Your task to perform on an android device: Add bose quietcomfort 35 to the cart on ebay.com Image 0: 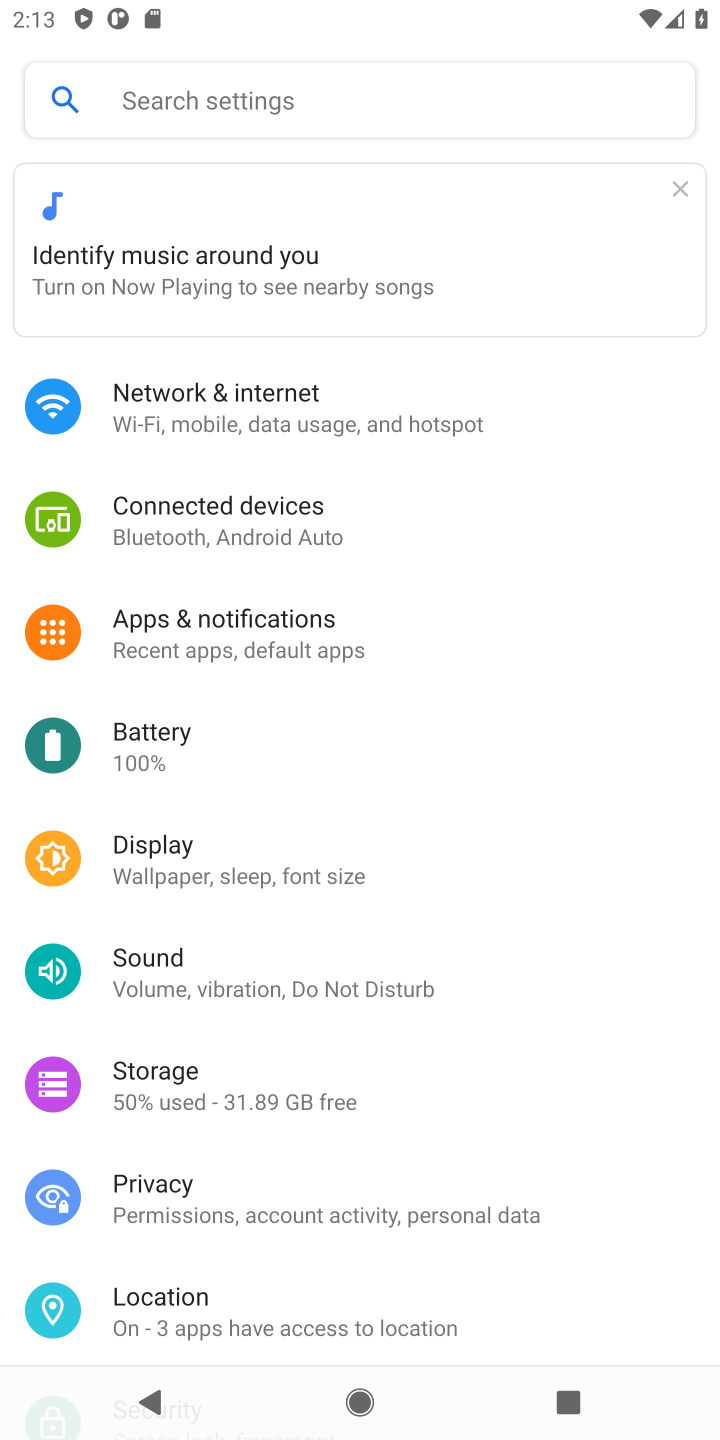
Step 0: press home button
Your task to perform on an android device: Add bose quietcomfort 35 to the cart on ebay.com Image 1: 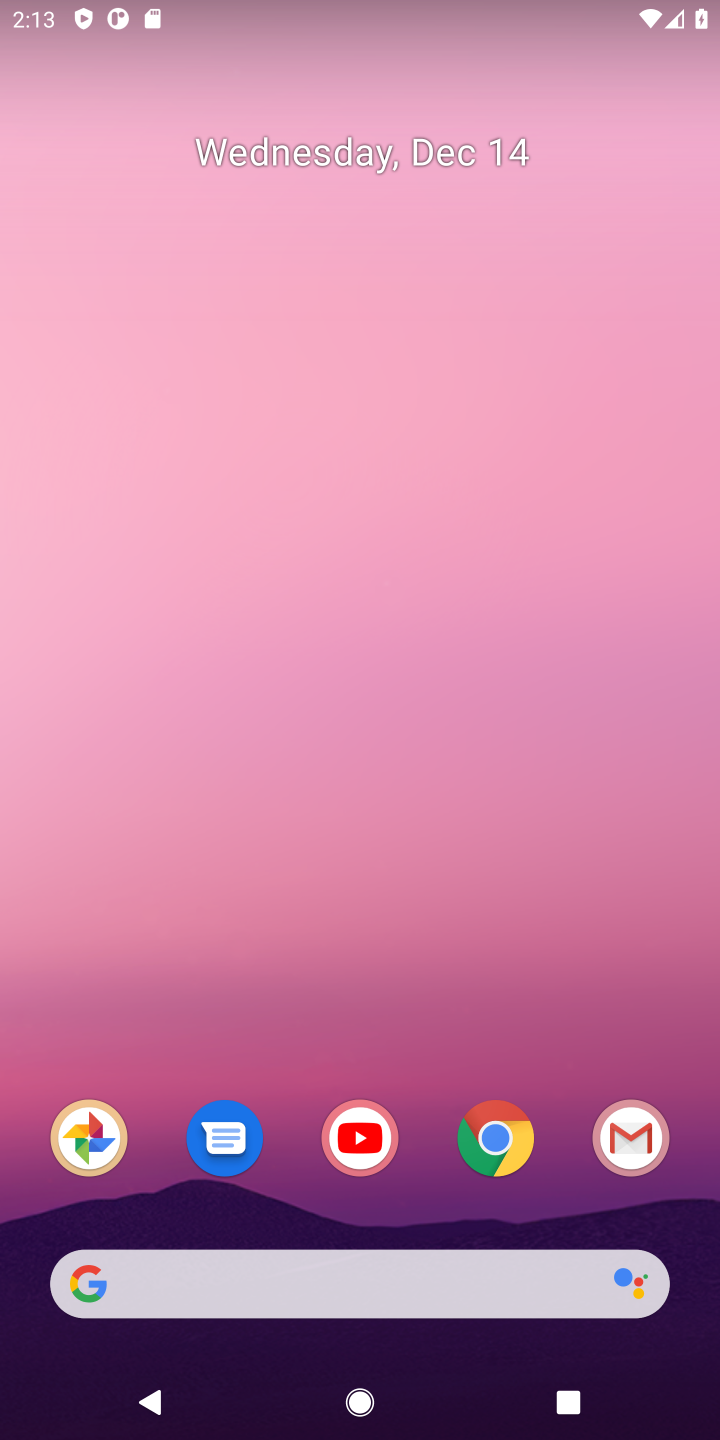
Step 1: click (488, 1149)
Your task to perform on an android device: Add bose quietcomfort 35 to the cart on ebay.com Image 2: 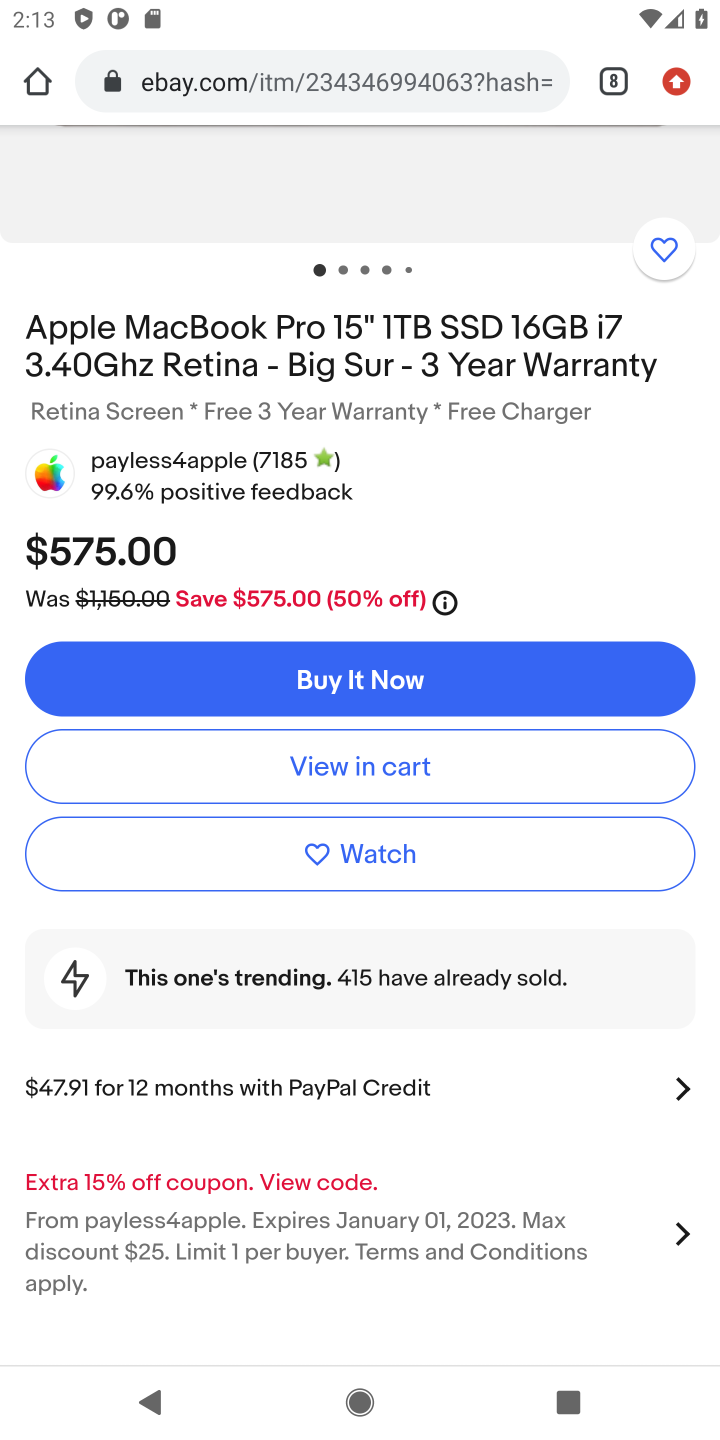
Step 2: drag from (475, 214) to (570, 1168)
Your task to perform on an android device: Add bose quietcomfort 35 to the cart on ebay.com Image 3: 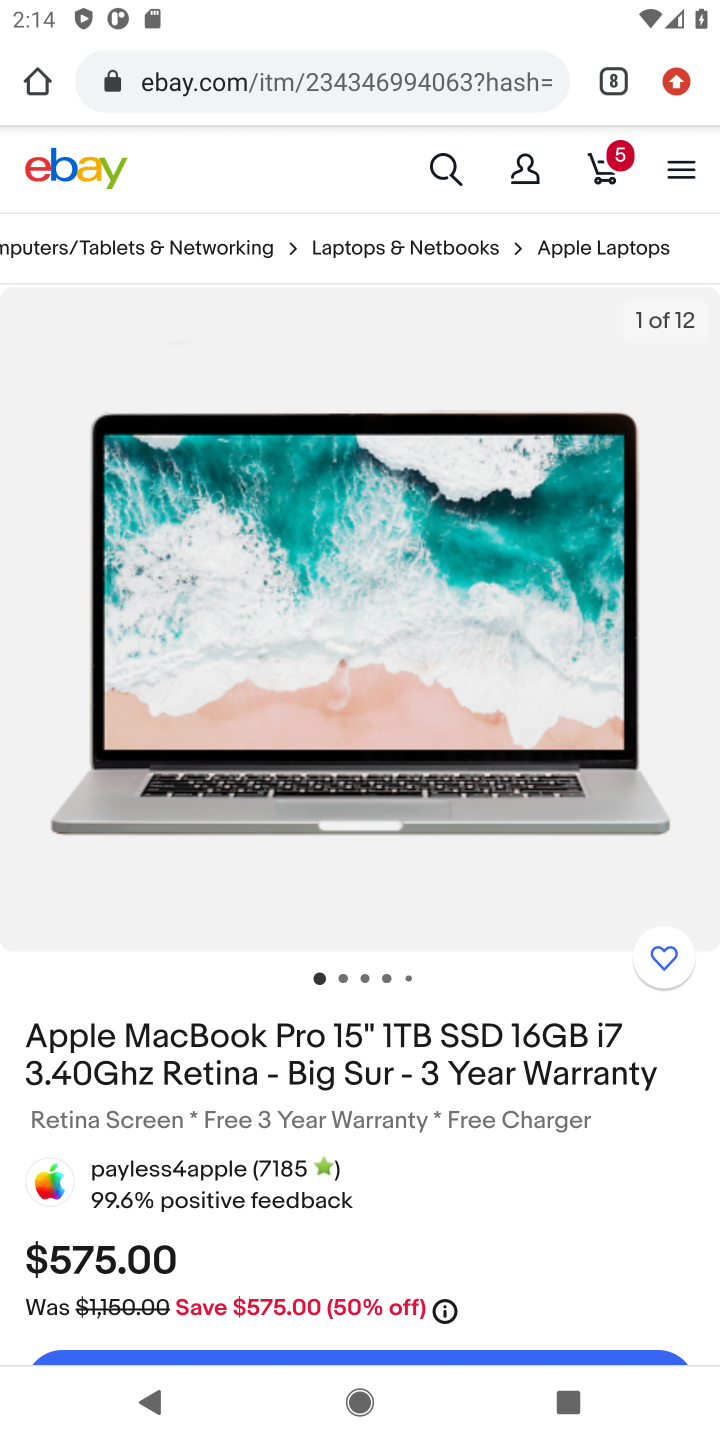
Step 3: click (436, 171)
Your task to perform on an android device: Add bose quietcomfort 35 to the cart on ebay.com Image 4: 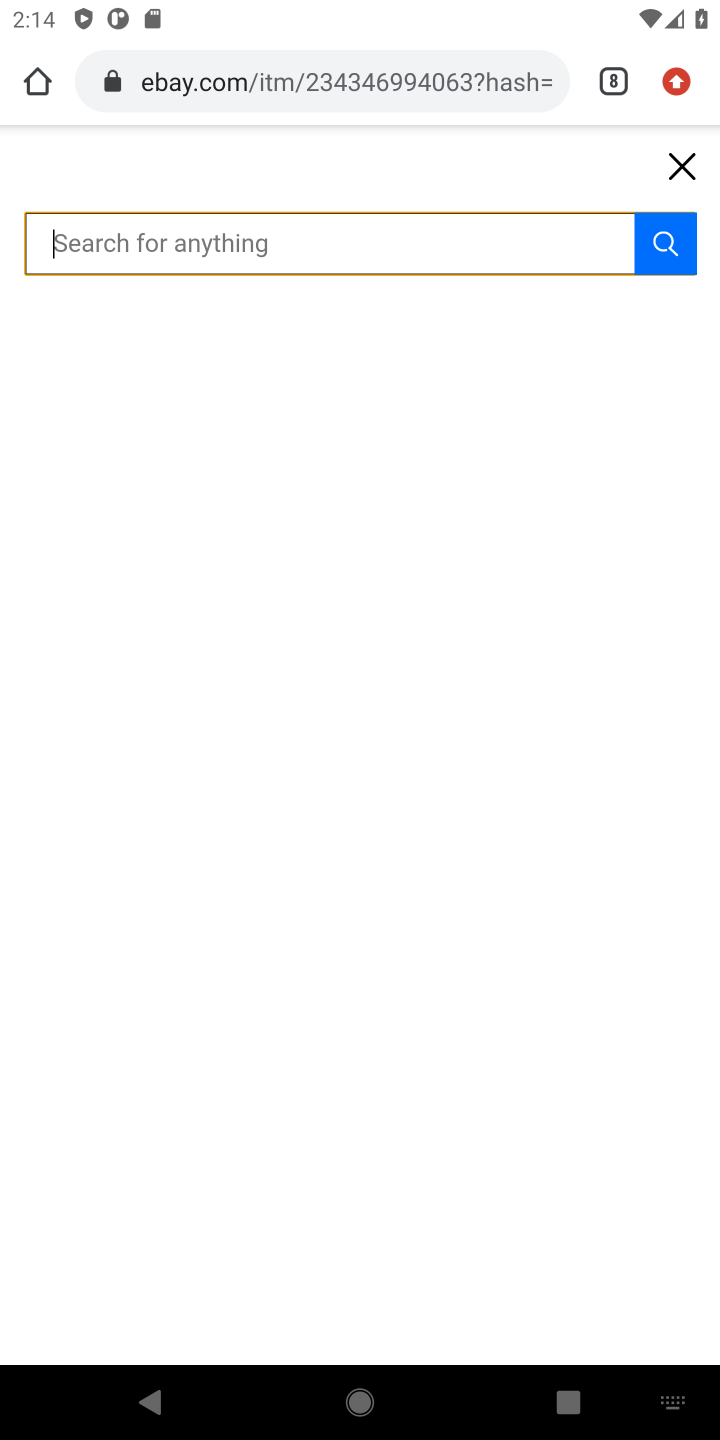
Step 4: type "bose quietcomfort 35"
Your task to perform on an android device: Add bose quietcomfort 35 to the cart on ebay.com Image 5: 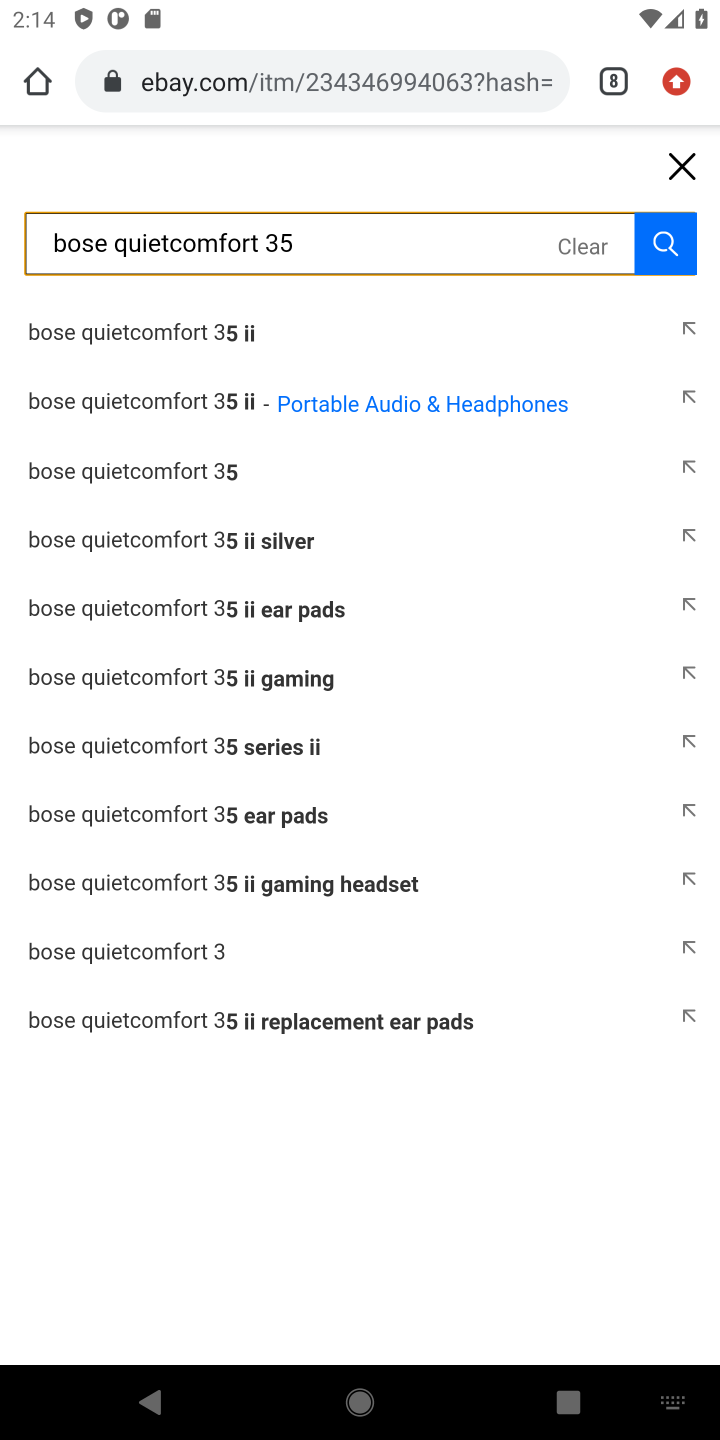
Step 5: click (215, 390)
Your task to perform on an android device: Add bose quietcomfort 35 to the cart on ebay.com Image 6: 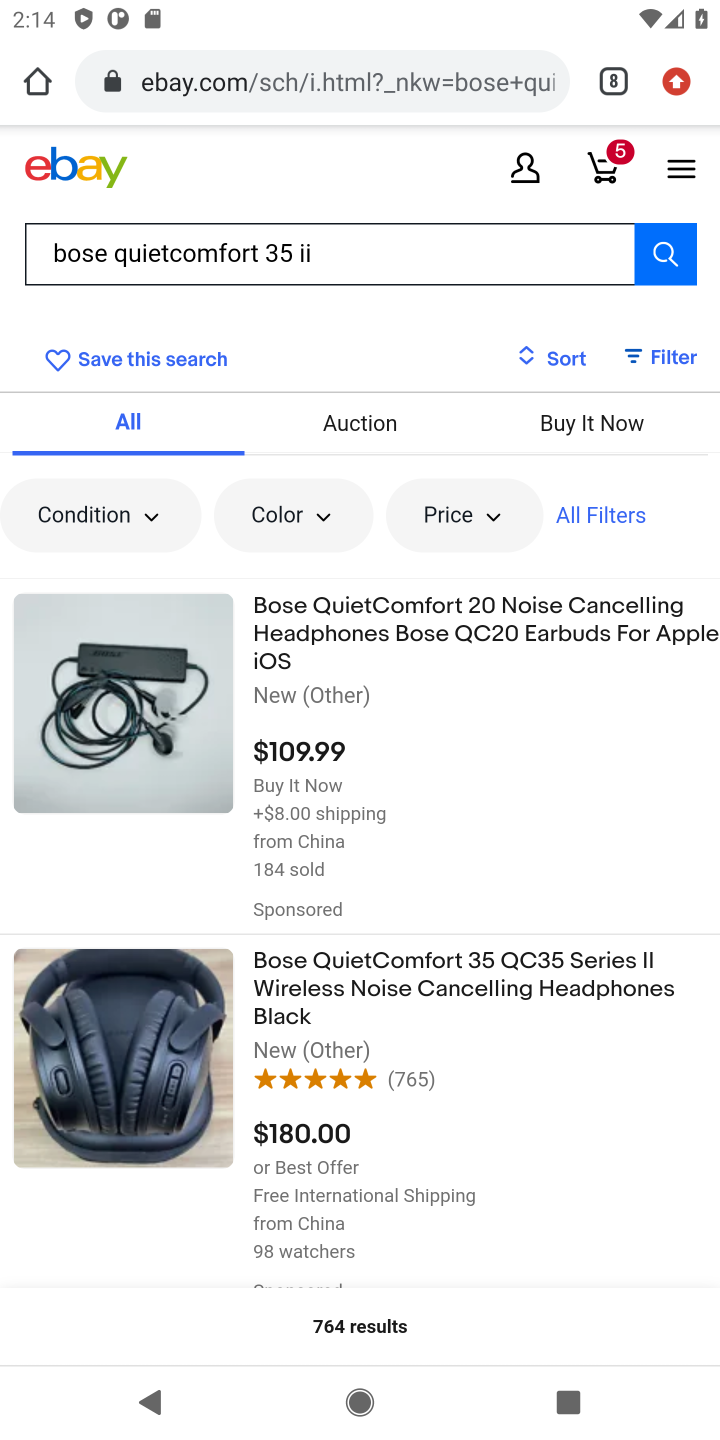
Step 6: click (471, 631)
Your task to perform on an android device: Add bose quietcomfort 35 to the cart on ebay.com Image 7: 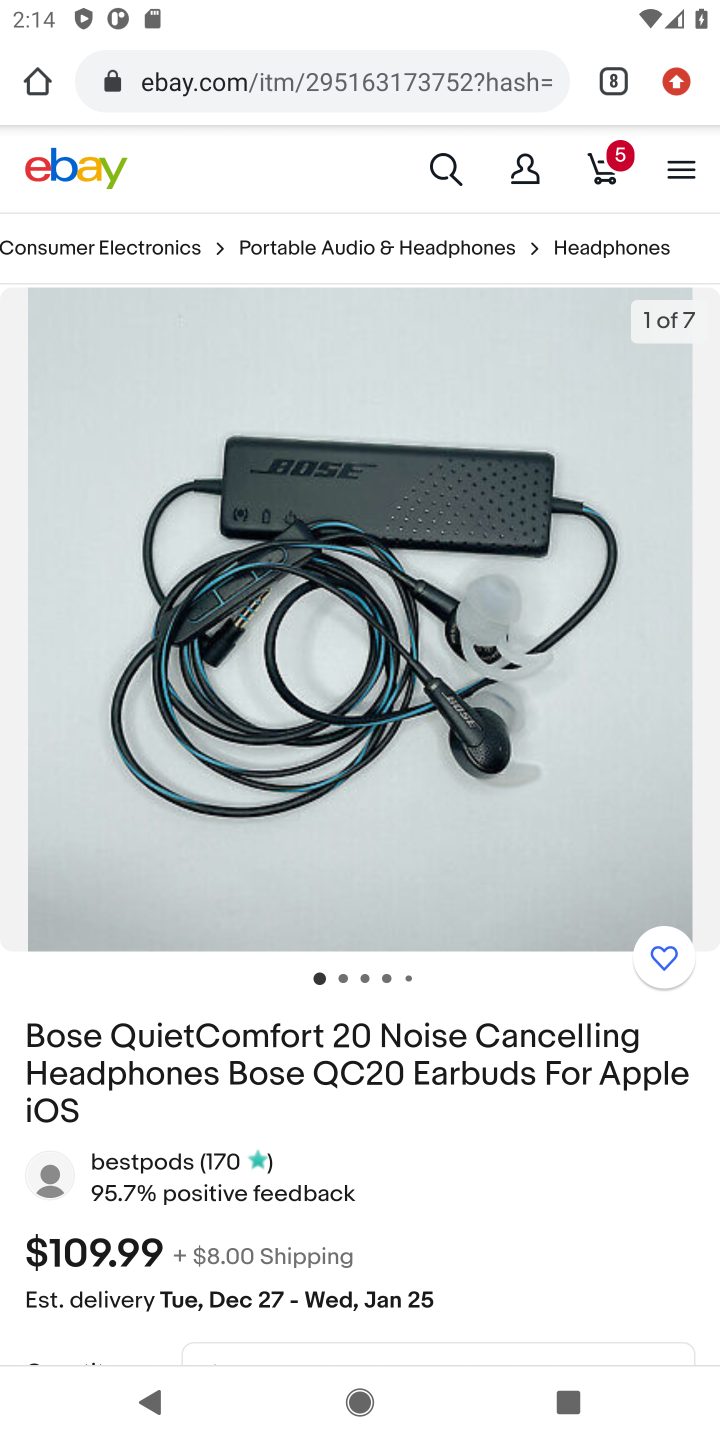
Step 7: drag from (474, 1197) to (281, 268)
Your task to perform on an android device: Add bose quietcomfort 35 to the cart on ebay.com Image 8: 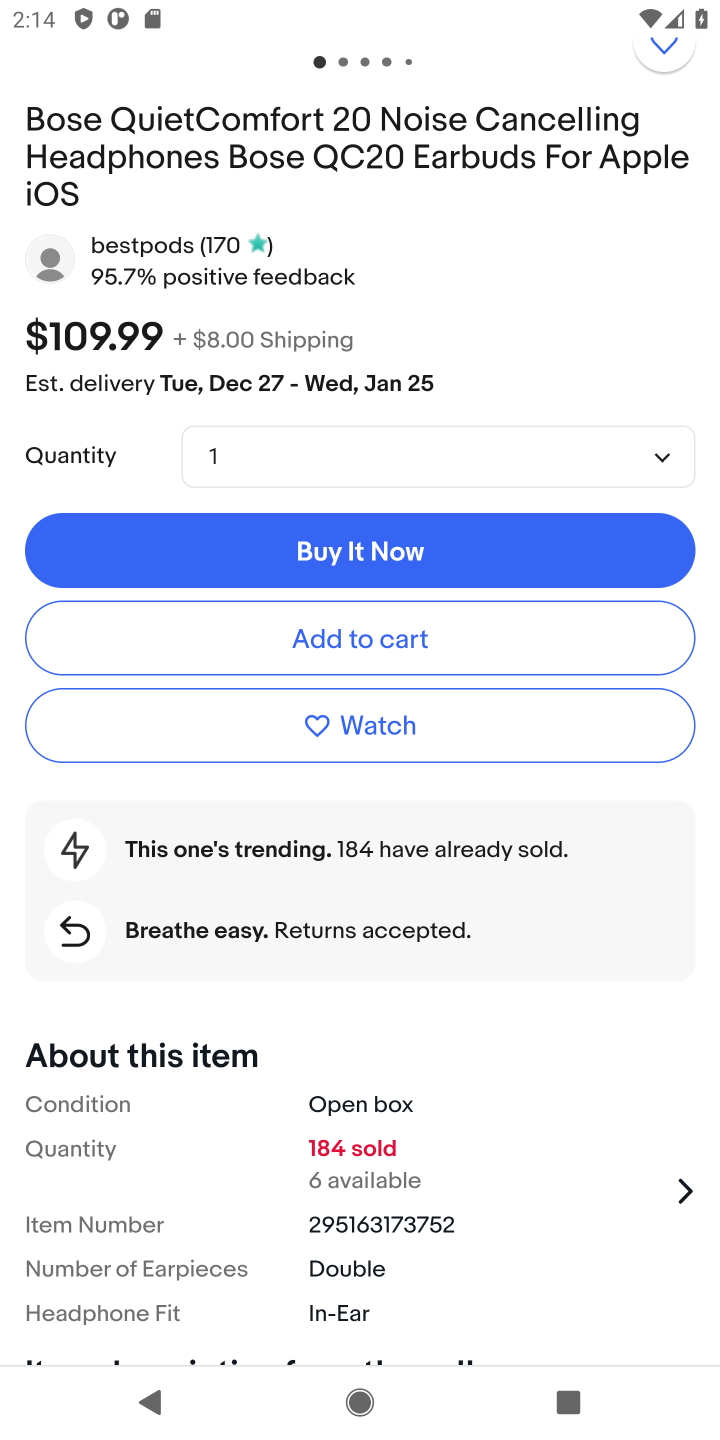
Step 8: click (374, 654)
Your task to perform on an android device: Add bose quietcomfort 35 to the cart on ebay.com Image 9: 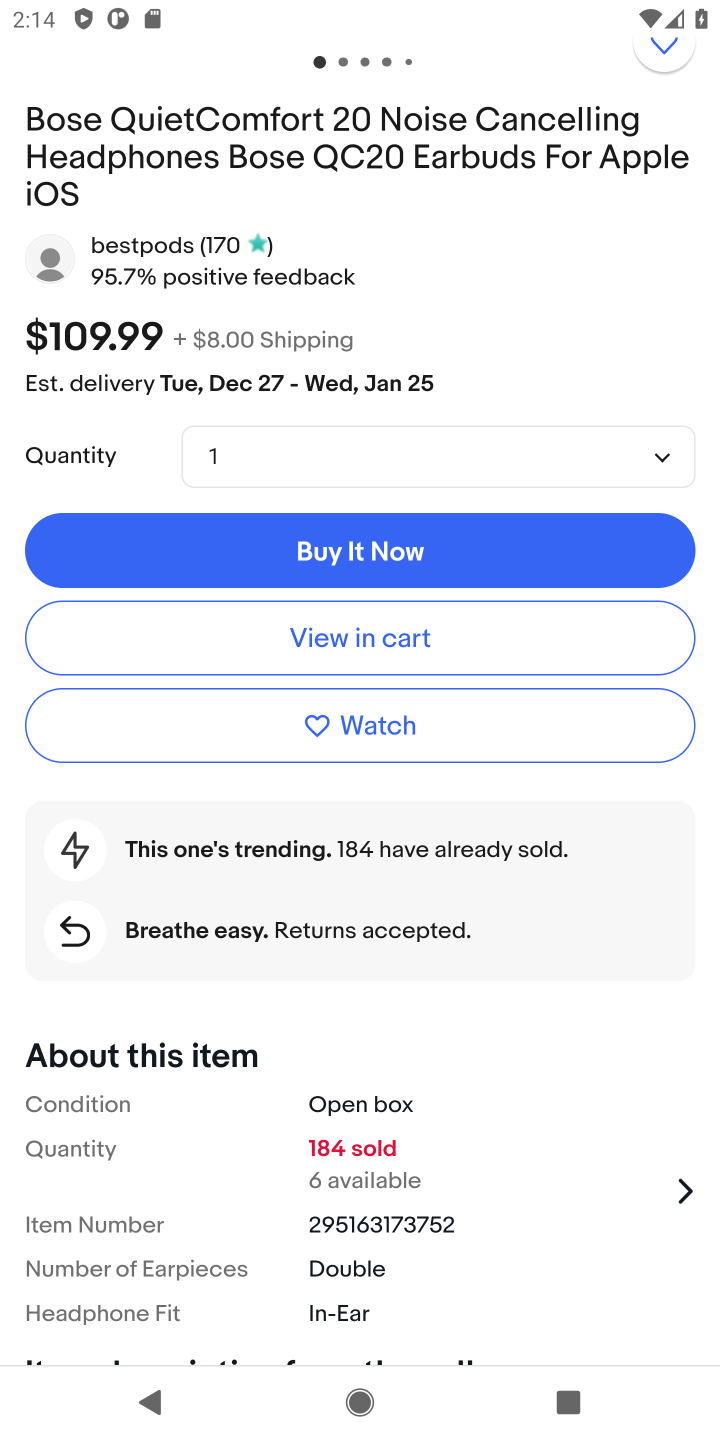
Step 9: task complete